Your task to perform on an android device: Add "razer huntsman" to the cart on costco.com, then select checkout. Image 0: 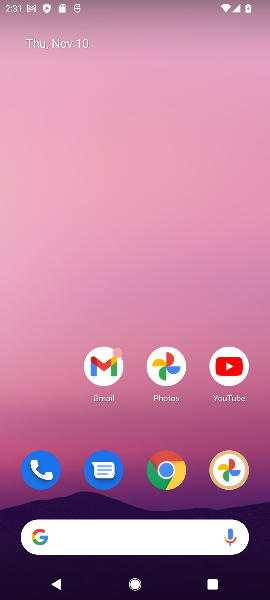
Step 0: click (176, 471)
Your task to perform on an android device: Add "razer huntsman" to the cart on costco.com, then select checkout. Image 1: 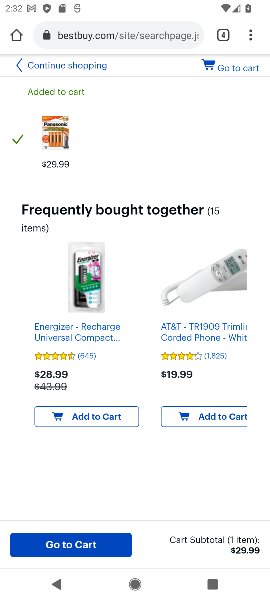
Step 1: click (228, 35)
Your task to perform on an android device: Add "razer huntsman" to the cart on costco.com, then select checkout. Image 2: 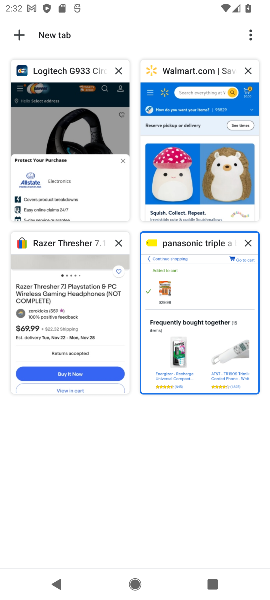
Step 2: click (18, 38)
Your task to perform on an android device: Add "razer huntsman" to the cart on costco.com, then select checkout. Image 3: 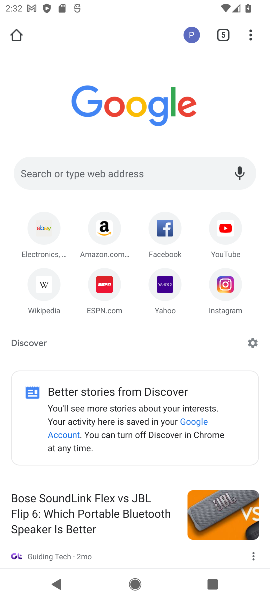
Step 3: click (88, 175)
Your task to perform on an android device: Add "razer huntsman" to the cart on costco.com, then select checkout. Image 4: 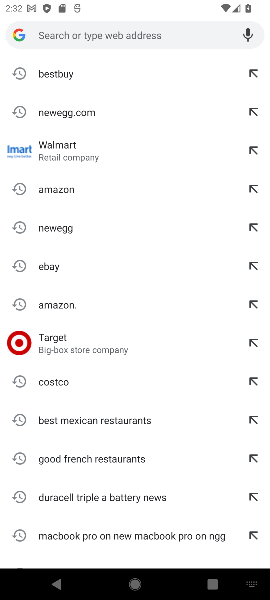
Step 4: click (37, 385)
Your task to perform on an android device: Add "razer huntsman" to the cart on costco.com, then select checkout. Image 5: 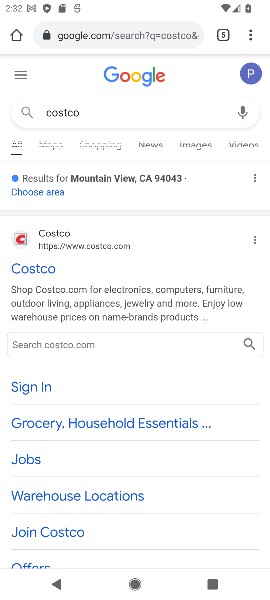
Step 5: click (50, 345)
Your task to perform on an android device: Add "razer huntsman" to the cart on costco.com, then select checkout. Image 6: 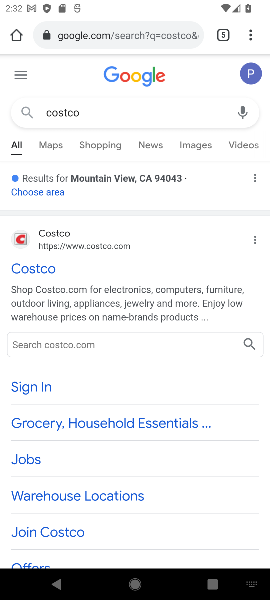
Step 6: type "razer huntsman"
Your task to perform on an android device: Add "razer huntsman" to the cart on costco.com, then select checkout. Image 7: 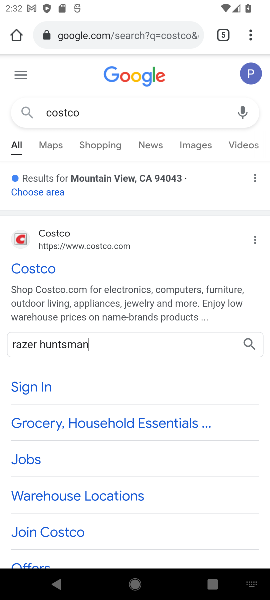
Step 7: click (250, 343)
Your task to perform on an android device: Add "razer huntsman" to the cart on costco.com, then select checkout. Image 8: 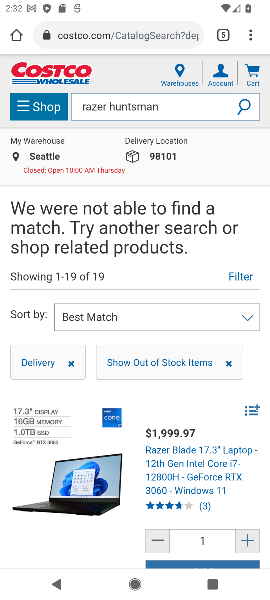
Step 8: task complete